Your task to perform on an android device: Open privacy settings Image 0: 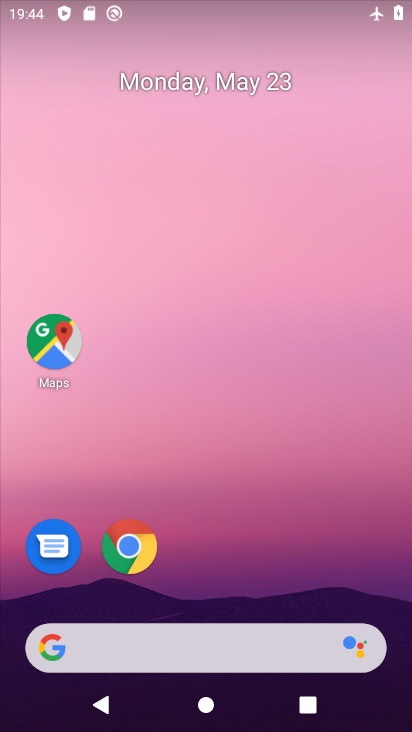
Step 0: drag from (379, 608) to (361, 187)
Your task to perform on an android device: Open privacy settings Image 1: 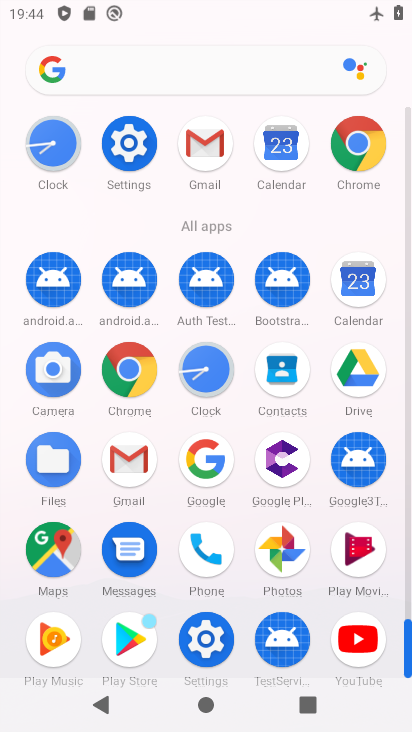
Step 1: drag from (388, 609) to (397, 492)
Your task to perform on an android device: Open privacy settings Image 2: 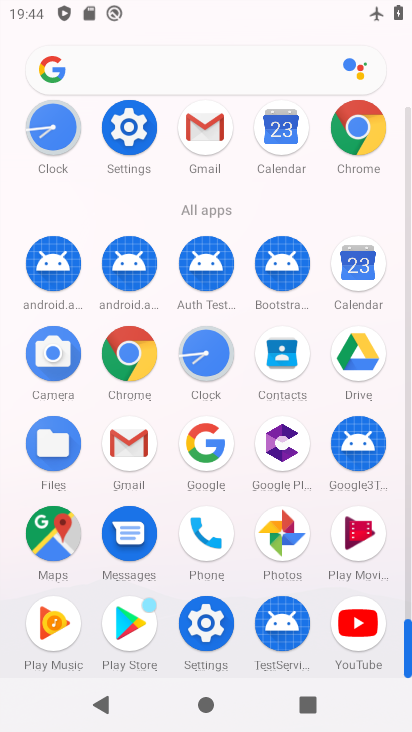
Step 2: click (201, 635)
Your task to perform on an android device: Open privacy settings Image 3: 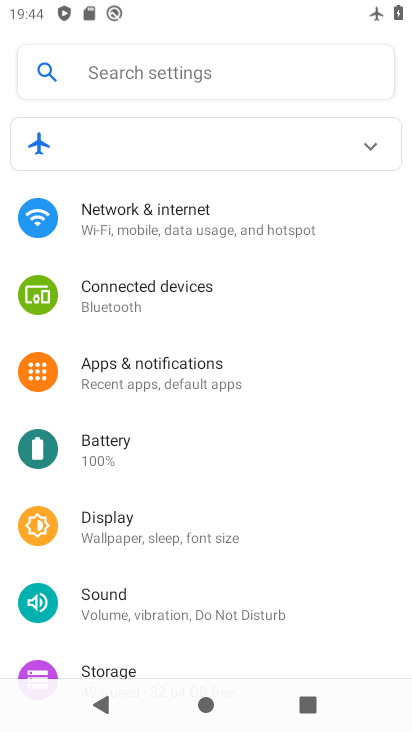
Step 3: drag from (356, 635) to (365, 480)
Your task to perform on an android device: Open privacy settings Image 4: 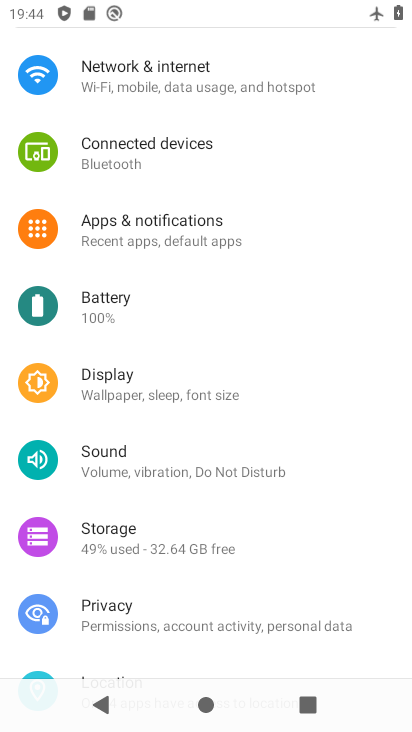
Step 4: drag from (361, 649) to (355, 534)
Your task to perform on an android device: Open privacy settings Image 5: 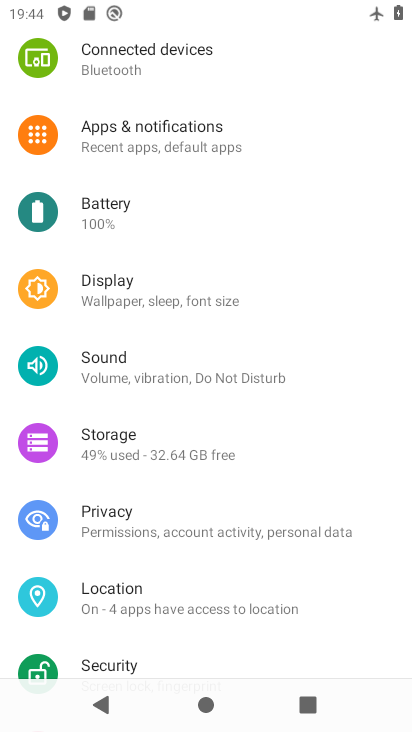
Step 5: drag from (375, 633) to (372, 517)
Your task to perform on an android device: Open privacy settings Image 6: 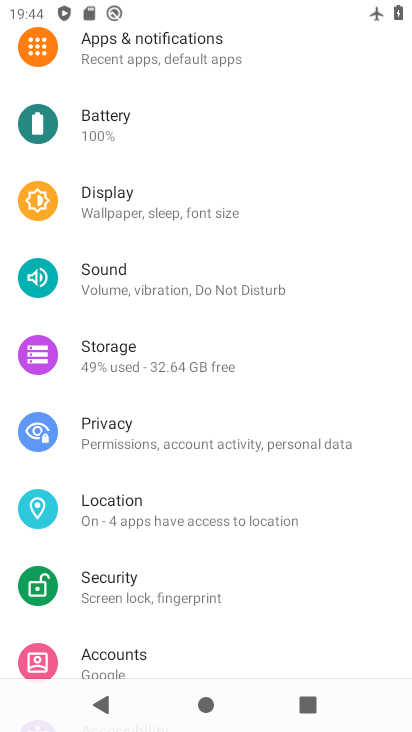
Step 6: drag from (373, 641) to (363, 530)
Your task to perform on an android device: Open privacy settings Image 7: 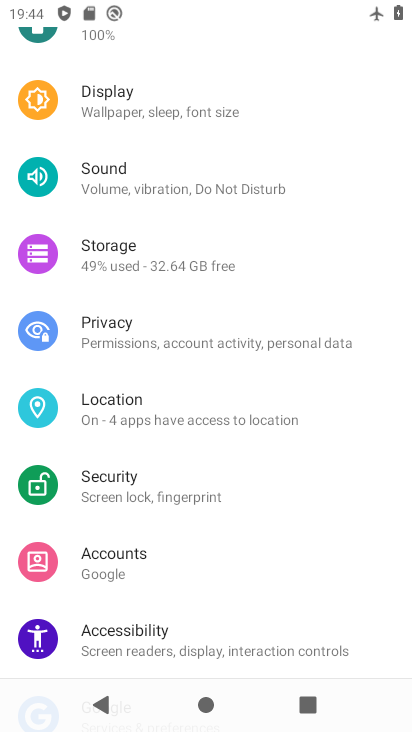
Step 7: drag from (376, 602) to (381, 488)
Your task to perform on an android device: Open privacy settings Image 8: 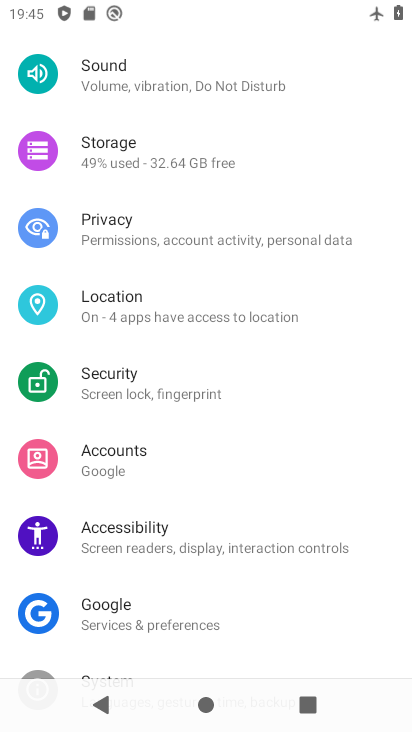
Step 8: drag from (372, 597) to (373, 465)
Your task to perform on an android device: Open privacy settings Image 9: 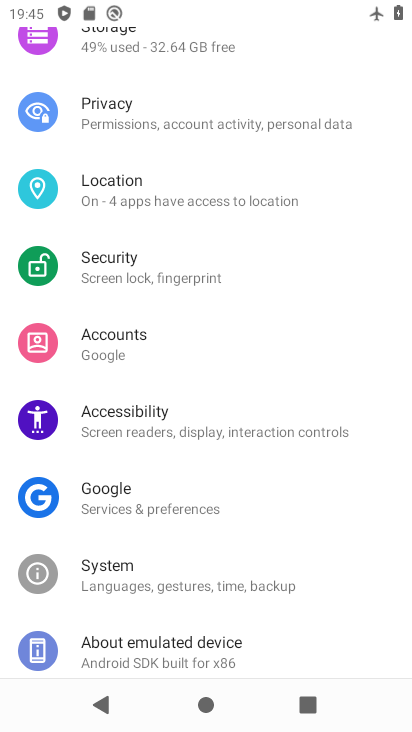
Step 9: drag from (352, 604) to (363, 471)
Your task to perform on an android device: Open privacy settings Image 10: 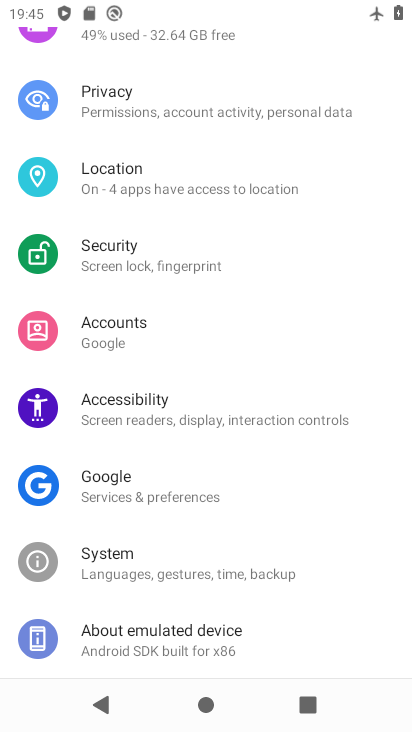
Step 10: drag from (359, 602) to (368, 495)
Your task to perform on an android device: Open privacy settings Image 11: 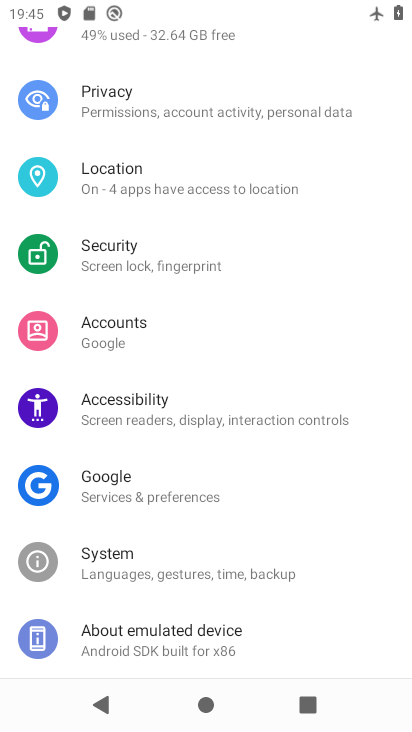
Step 11: drag from (371, 614) to (369, 468)
Your task to perform on an android device: Open privacy settings Image 12: 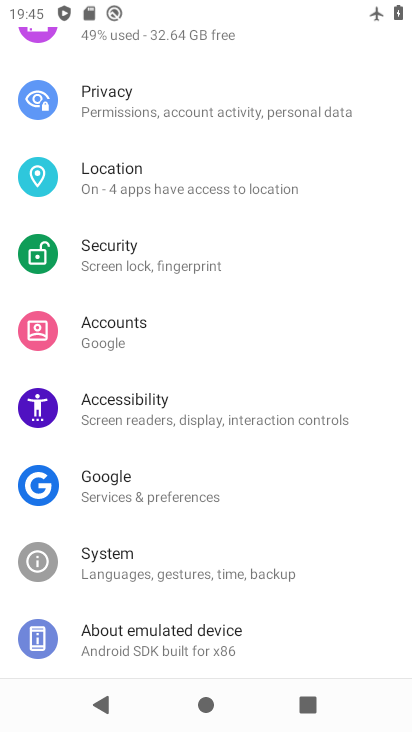
Step 12: drag from (382, 319) to (373, 432)
Your task to perform on an android device: Open privacy settings Image 13: 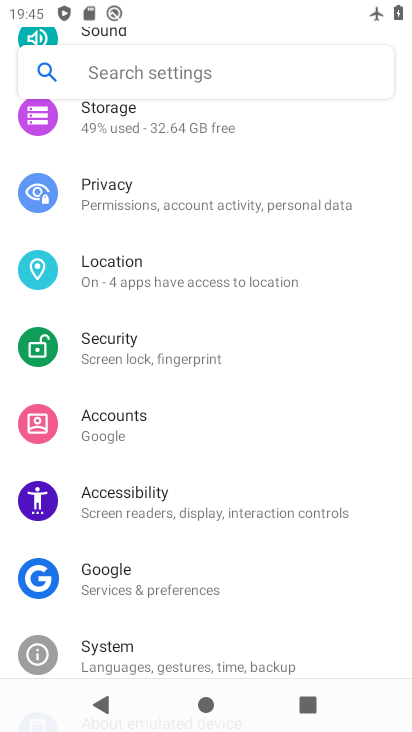
Step 13: drag from (359, 324) to (346, 444)
Your task to perform on an android device: Open privacy settings Image 14: 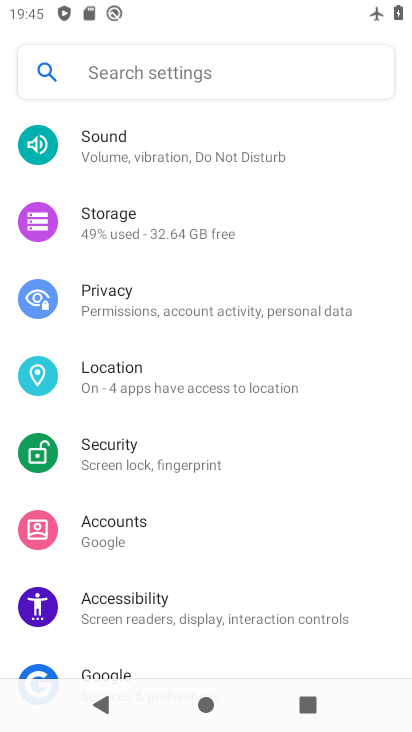
Step 14: drag from (356, 337) to (356, 440)
Your task to perform on an android device: Open privacy settings Image 15: 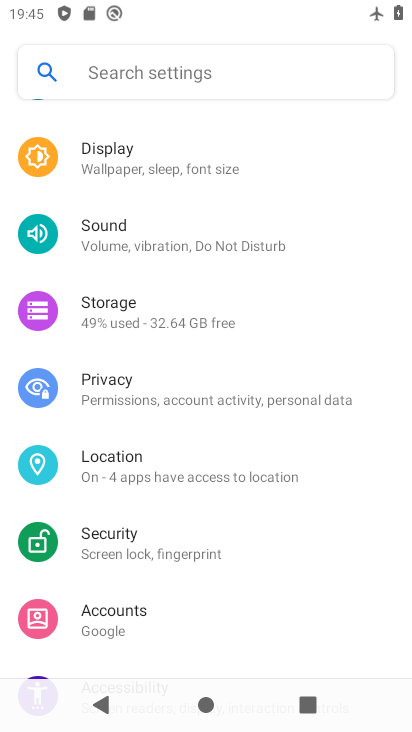
Step 15: drag from (364, 297) to (362, 419)
Your task to perform on an android device: Open privacy settings Image 16: 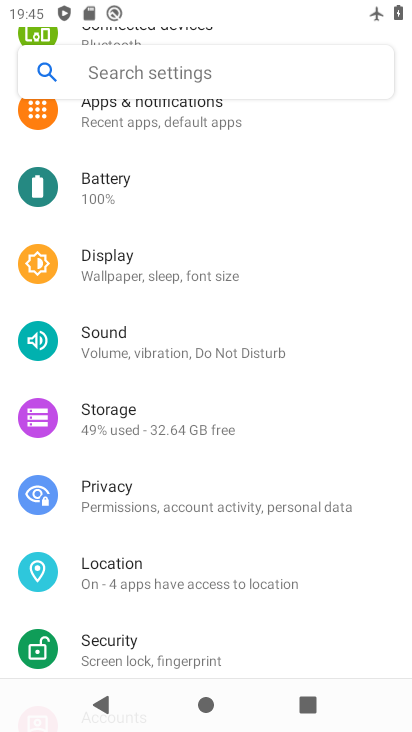
Step 16: click (183, 504)
Your task to perform on an android device: Open privacy settings Image 17: 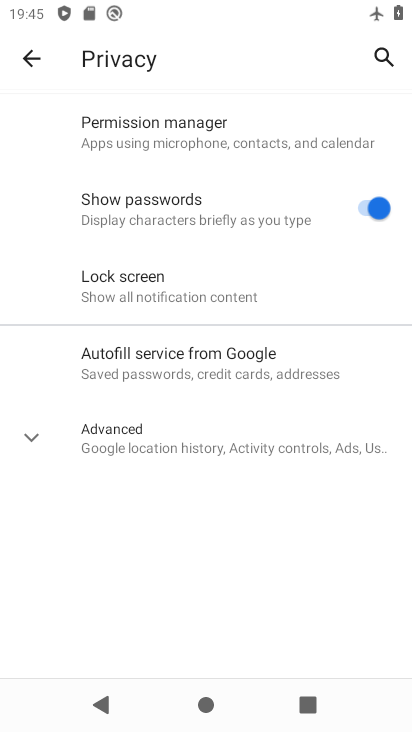
Step 17: task complete